Your task to perform on an android device: See recent photos Image 0: 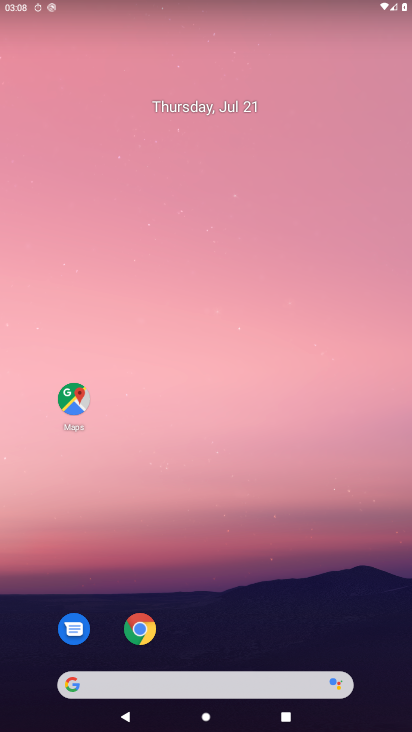
Step 0: drag from (40, 677) to (177, 136)
Your task to perform on an android device: See recent photos Image 1: 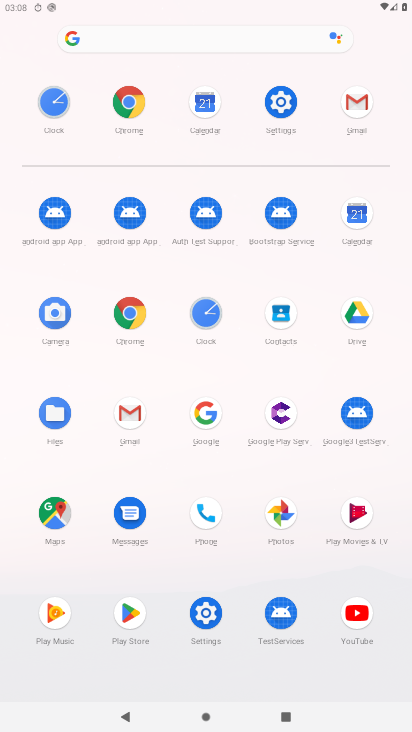
Step 1: click (286, 519)
Your task to perform on an android device: See recent photos Image 2: 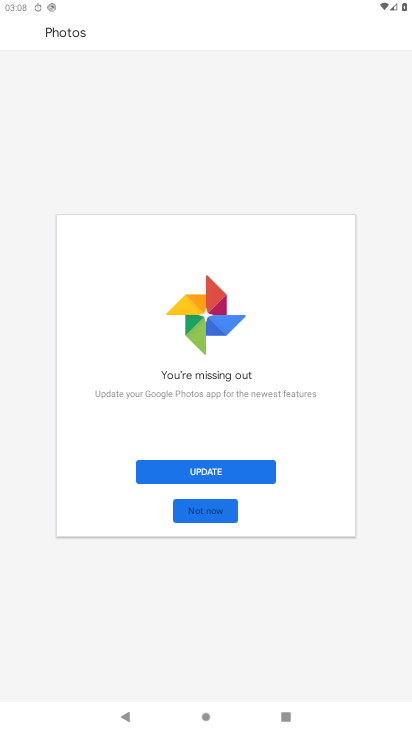
Step 2: click (195, 505)
Your task to perform on an android device: See recent photos Image 3: 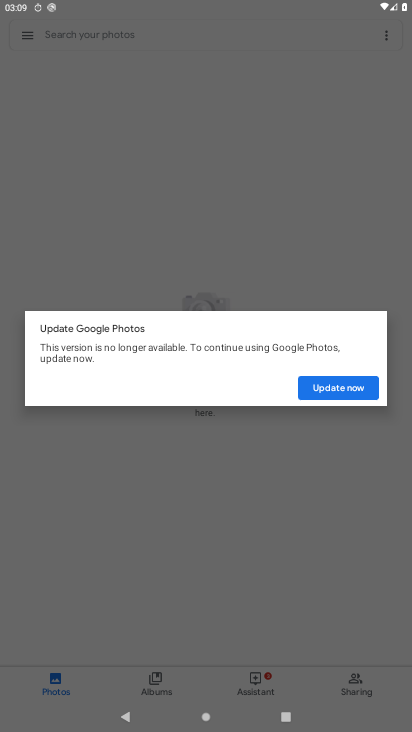
Step 3: click (366, 378)
Your task to perform on an android device: See recent photos Image 4: 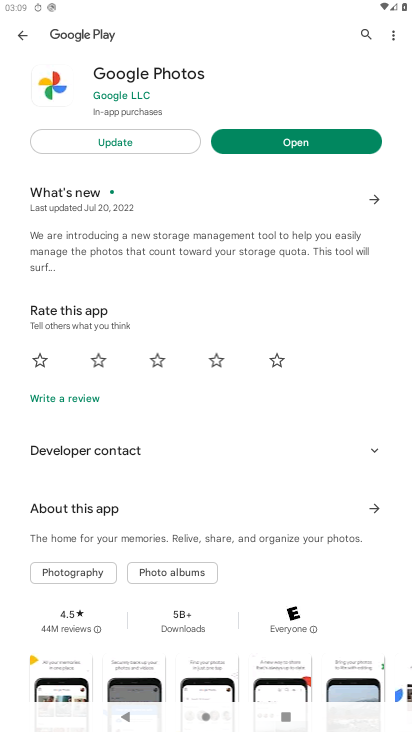
Step 4: click (292, 126)
Your task to perform on an android device: See recent photos Image 5: 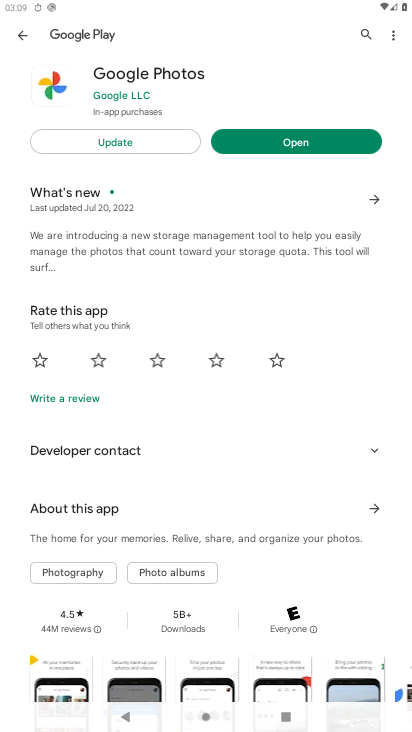
Step 5: click (292, 139)
Your task to perform on an android device: See recent photos Image 6: 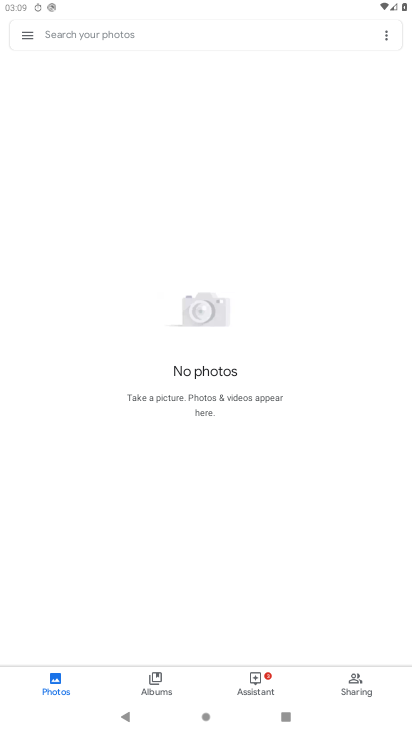
Step 6: task complete